Your task to perform on an android device: Go to accessibility settings Image 0: 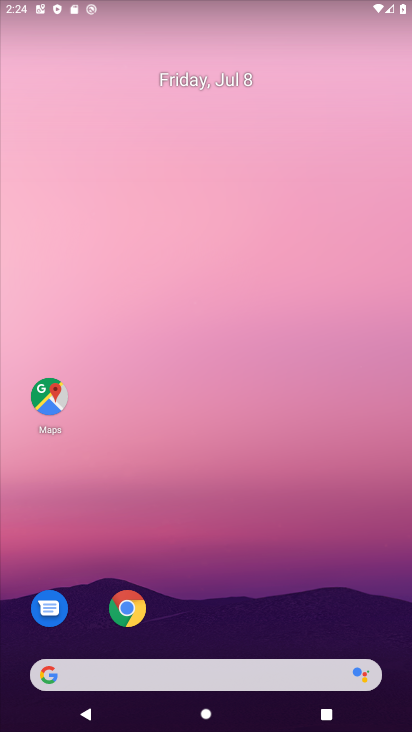
Step 0: drag from (287, 669) to (343, 0)
Your task to perform on an android device: Go to accessibility settings Image 1: 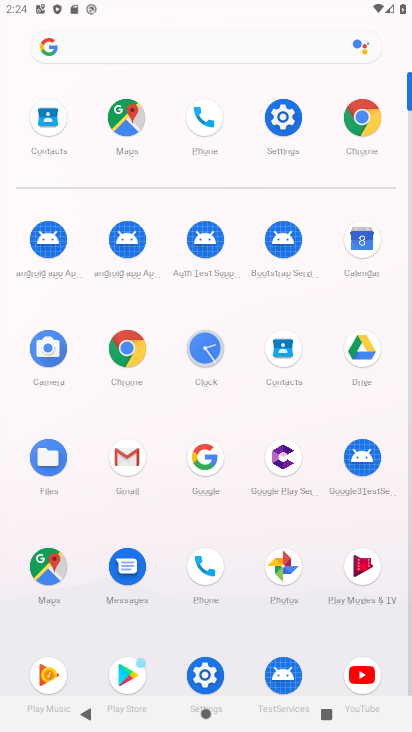
Step 1: click (280, 109)
Your task to perform on an android device: Go to accessibility settings Image 2: 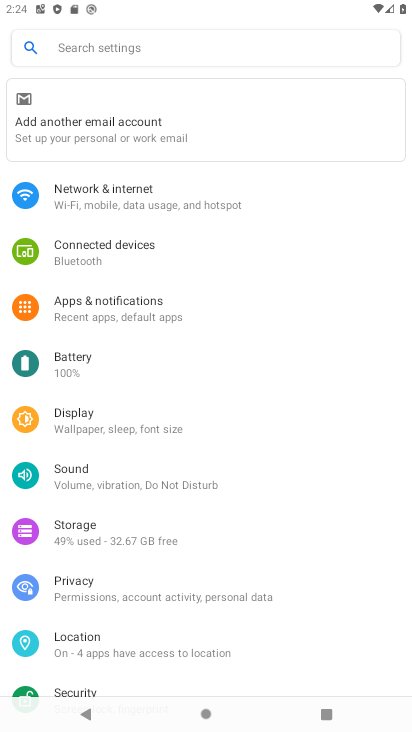
Step 2: drag from (160, 565) to (193, 187)
Your task to perform on an android device: Go to accessibility settings Image 3: 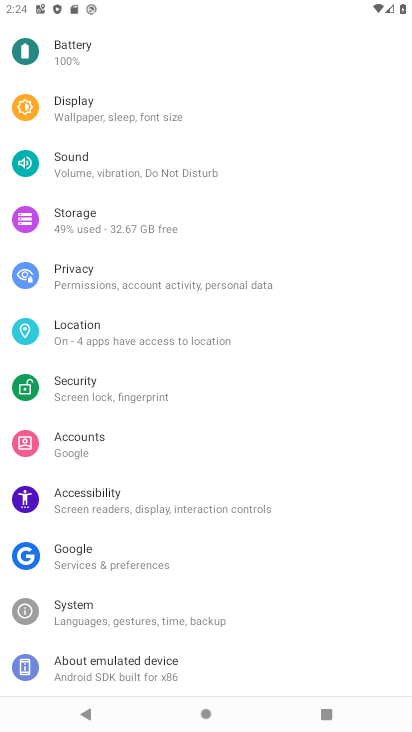
Step 3: click (111, 502)
Your task to perform on an android device: Go to accessibility settings Image 4: 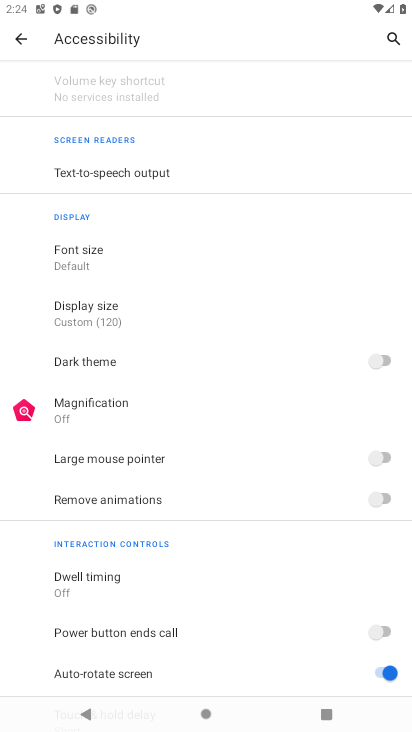
Step 4: task complete